Your task to perform on an android device: turn pop-ups off in chrome Image 0: 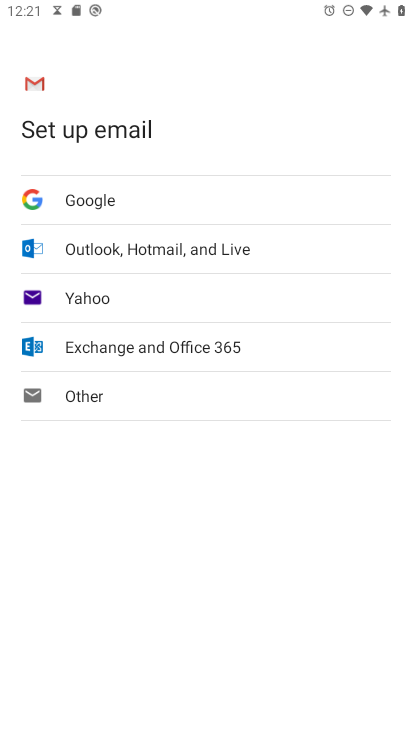
Step 0: press home button
Your task to perform on an android device: turn pop-ups off in chrome Image 1: 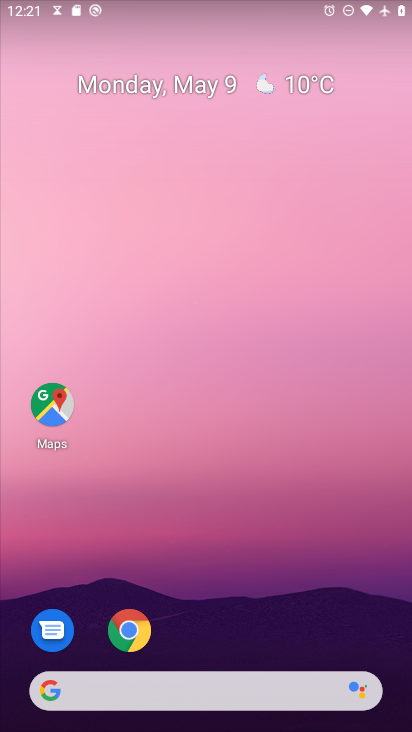
Step 1: click (138, 638)
Your task to perform on an android device: turn pop-ups off in chrome Image 2: 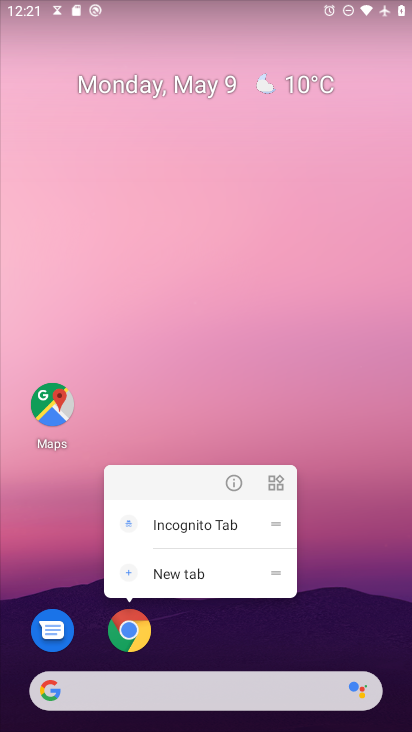
Step 2: click (130, 639)
Your task to perform on an android device: turn pop-ups off in chrome Image 3: 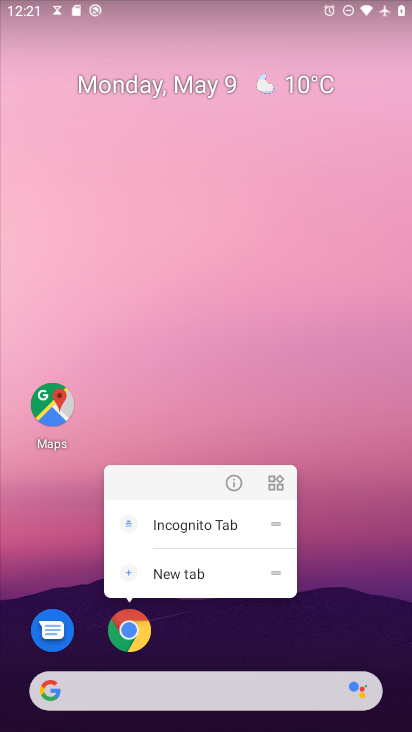
Step 3: click (143, 625)
Your task to perform on an android device: turn pop-ups off in chrome Image 4: 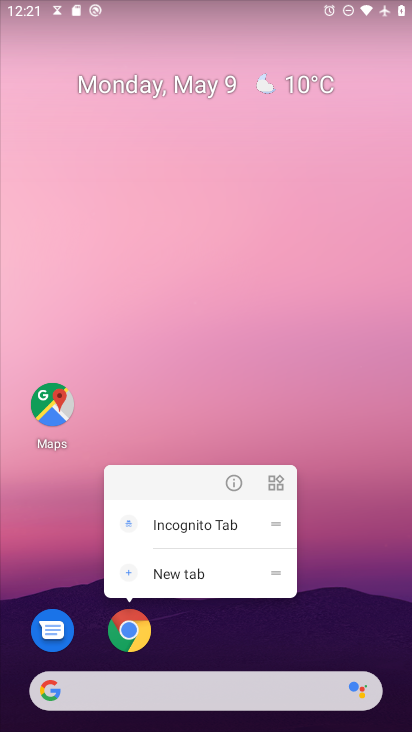
Step 4: click (133, 637)
Your task to perform on an android device: turn pop-ups off in chrome Image 5: 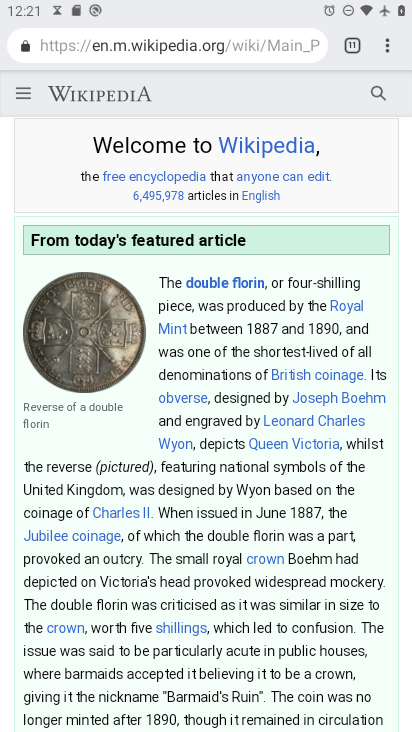
Step 5: click (385, 46)
Your task to perform on an android device: turn pop-ups off in chrome Image 6: 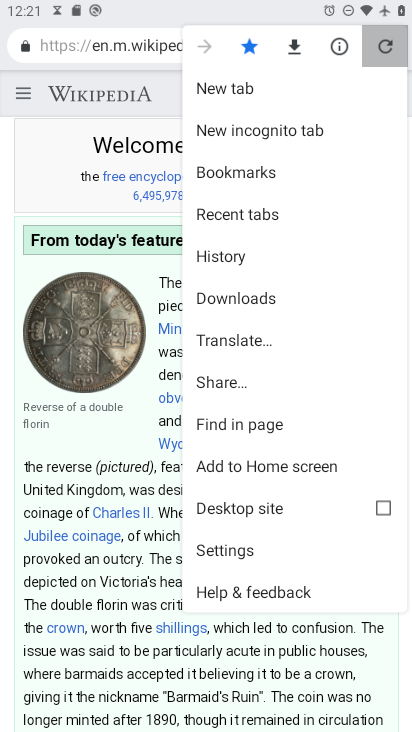
Step 6: drag from (297, 274) to (232, 541)
Your task to perform on an android device: turn pop-ups off in chrome Image 7: 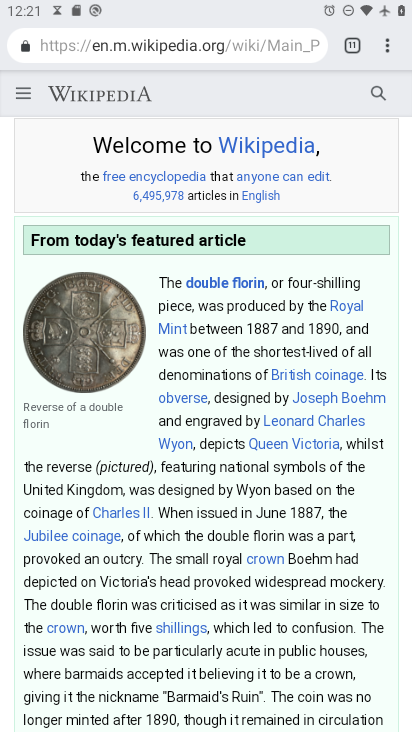
Step 7: drag from (385, 41) to (241, 551)
Your task to perform on an android device: turn pop-ups off in chrome Image 8: 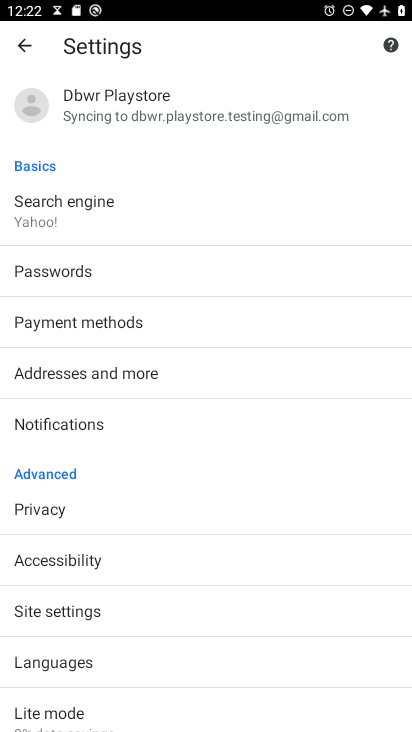
Step 8: click (78, 617)
Your task to perform on an android device: turn pop-ups off in chrome Image 9: 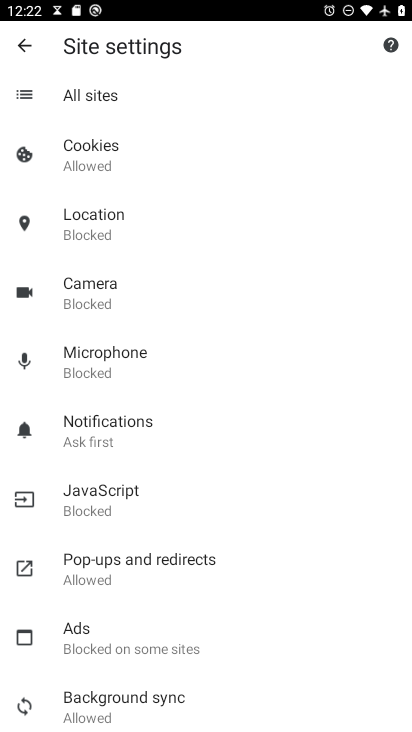
Step 9: click (102, 570)
Your task to perform on an android device: turn pop-ups off in chrome Image 10: 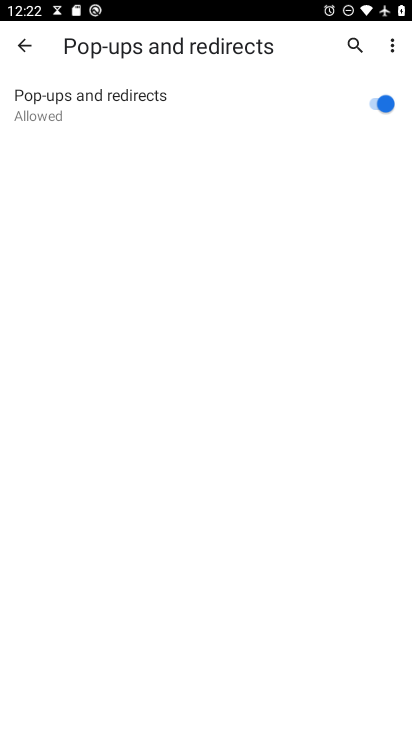
Step 10: click (373, 101)
Your task to perform on an android device: turn pop-ups off in chrome Image 11: 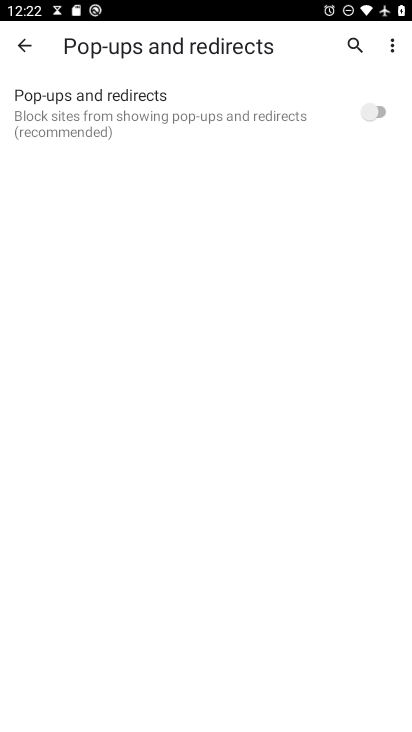
Step 11: task complete